Your task to perform on an android device: check storage Image 0: 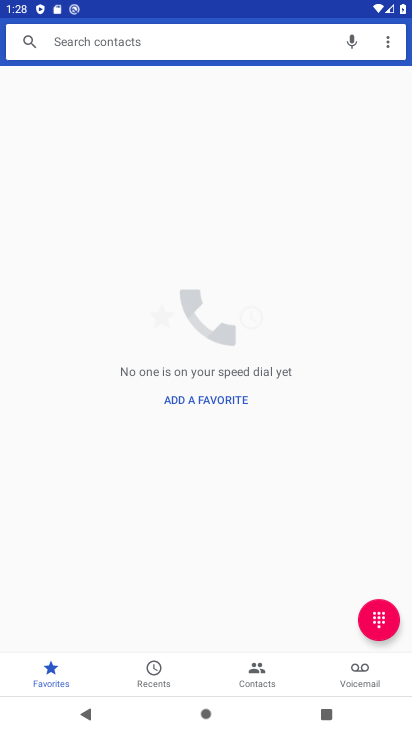
Step 0: press home button
Your task to perform on an android device: check storage Image 1: 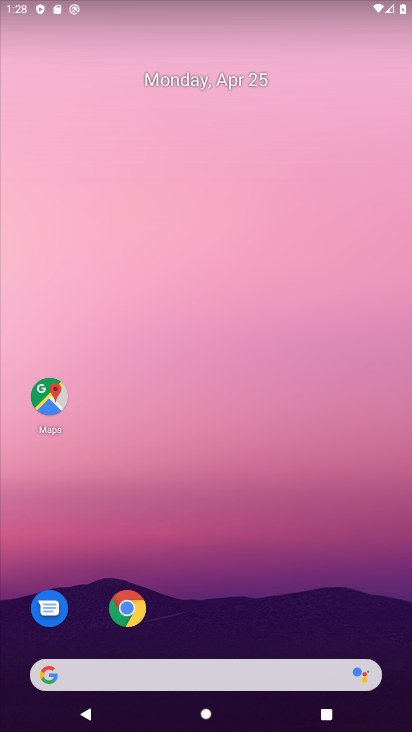
Step 1: drag from (353, 458) to (350, 113)
Your task to perform on an android device: check storage Image 2: 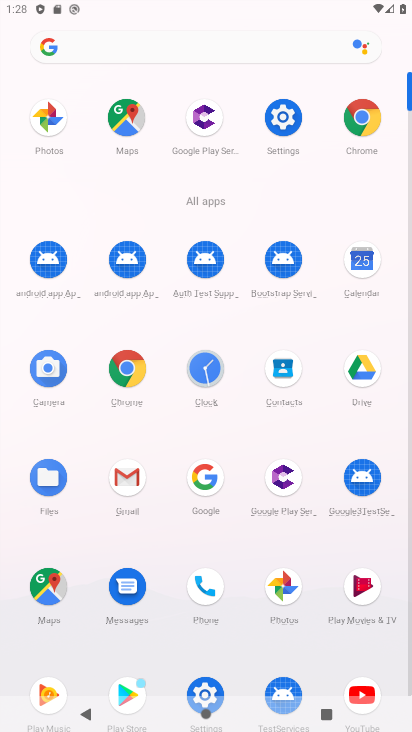
Step 2: click (292, 131)
Your task to perform on an android device: check storage Image 3: 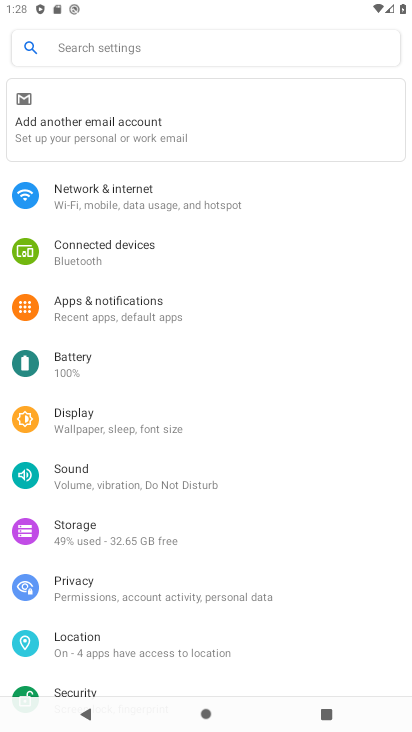
Step 3: click (166, 521)
Your task to perform on an android device: check storage Image 4: 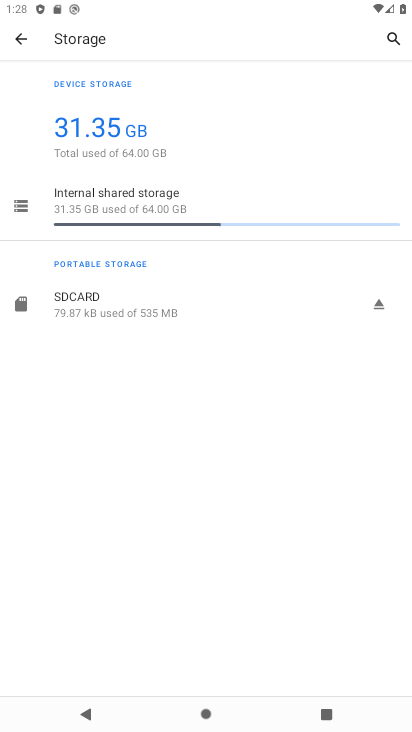
Step 4: task complete